Your task to perform on an android device: delete browsing data in the chrome app Image 0: 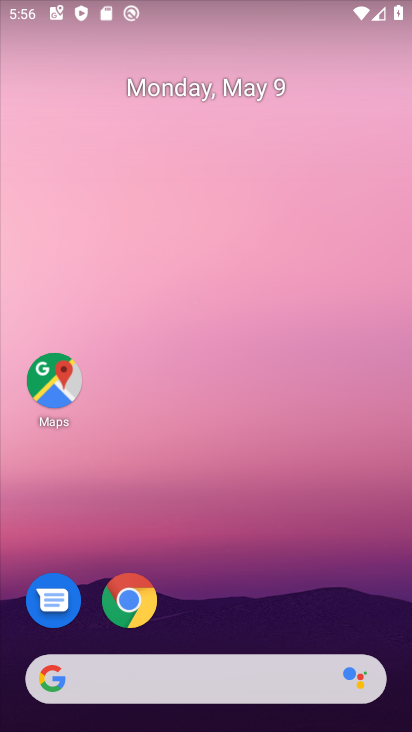
Step 0: drag from (246, 545) to (333, 16)
Your task to perform on an android device: delete browsing data in the chrome app Image 1: 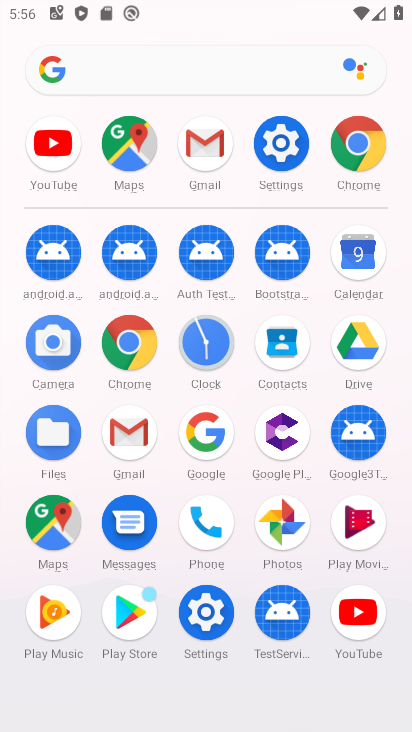
Step 1: click (134, 362)
Your task to perform on an android device: delete browsing data in the chrome app Image 2: 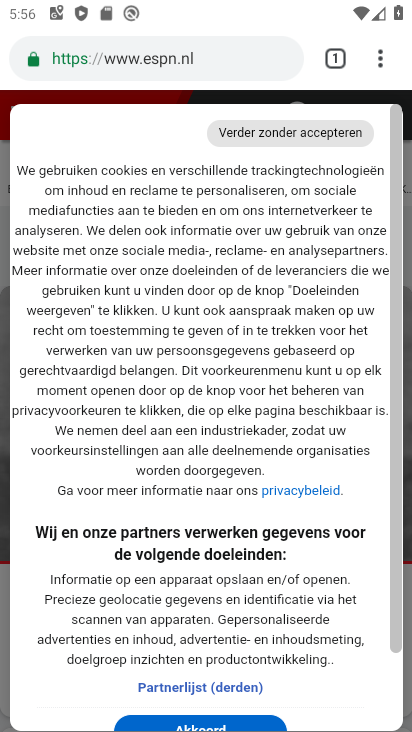
Step 2: click (381, 60)
Your task to perform on an android device: delete browsing data in the chrome app Image 3: 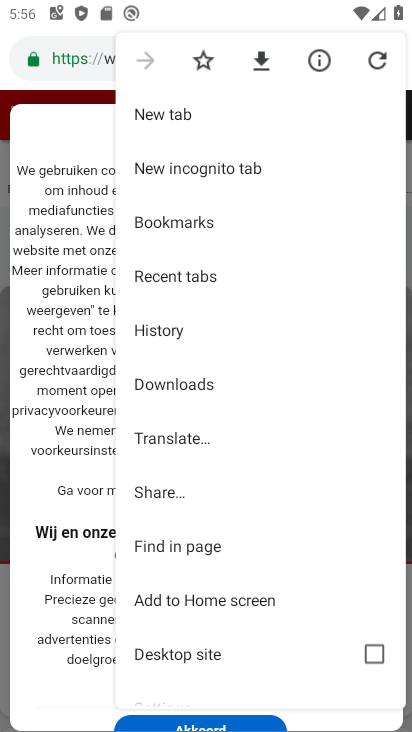
Step 3: click (170, 327)
Your task to perform on an android device: delete browsing data in the chrome app Image 4: 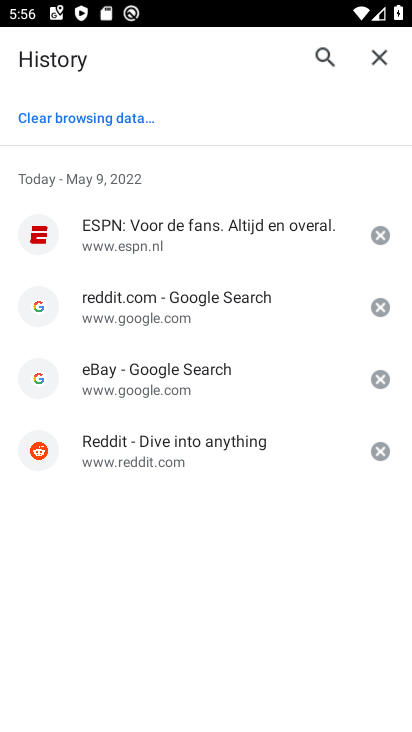
Step 4: click (113, 114)
Your task to perform on an android device: delete browsing data in the chrome app Image 5: 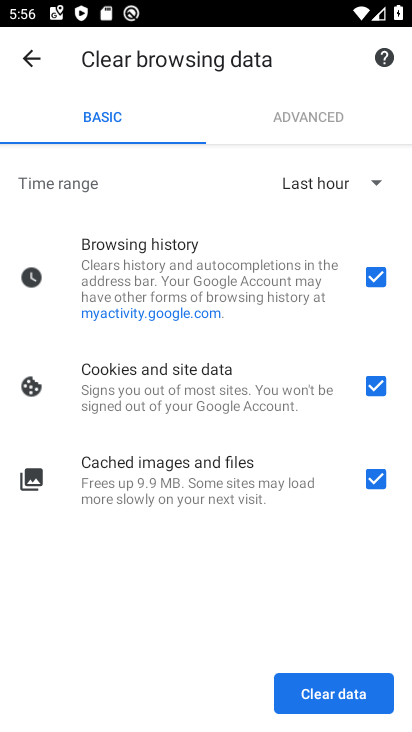
Step 5: click (351, 689)
Your task to perform on an android device: delete browsing data in the chrome app Image 6: 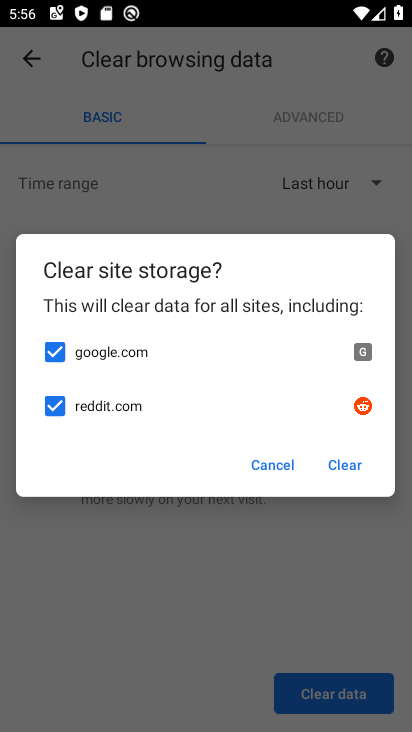
Step 6: click (352, 472)
Your task to perform on an android device: delete browsing data in the chrome app Image 7: 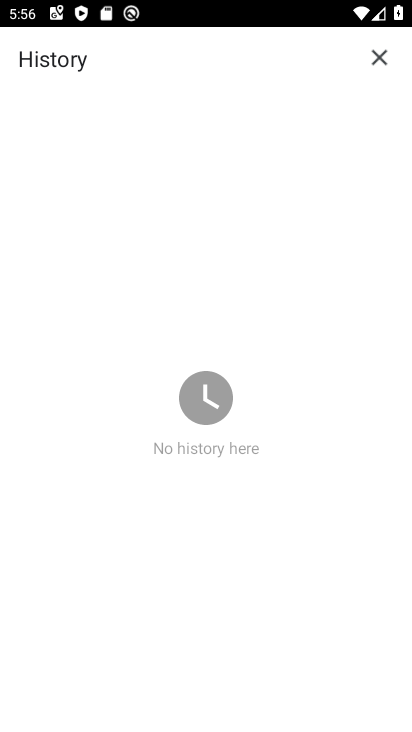
Step 7: task complete